Your task to perform on an android device: toggle priority inbox in the gmail app Image 0: 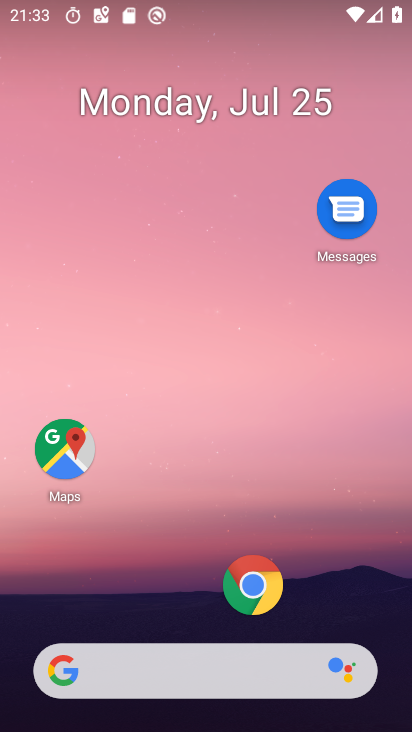
Step 0: press home button
Your task to perform on an android device: toggle priority inbox in the gmail app Image 1: 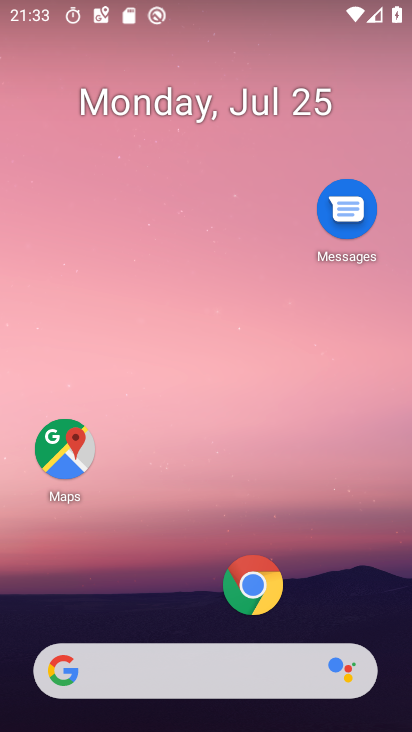
Step 1: drag from (229, 679) to (291, 132)
Your task to perform on an android device: toggle priority inbox in the gmail app Image 2: 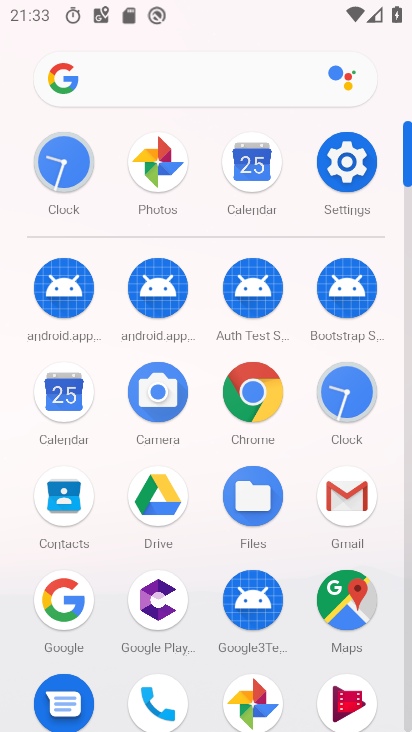
Step 2: click (341, 497)
Your task to perform on an android device: toggle priority inbox in the gmail app Image 3: 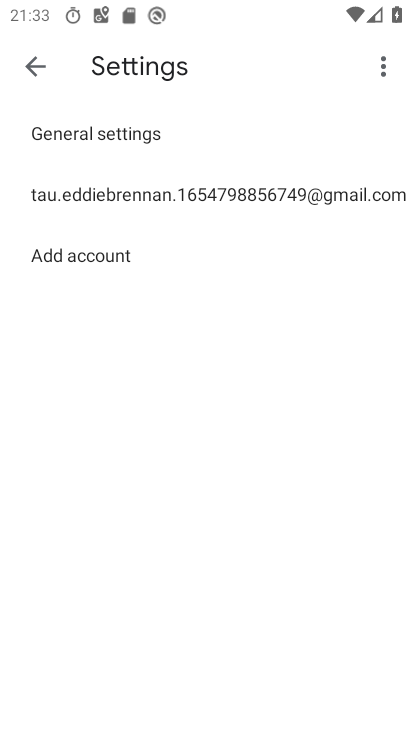
Step 3: click (148, 198)
Your task to perform on an android device: toggle priority inbox in the gmail app Image 4: 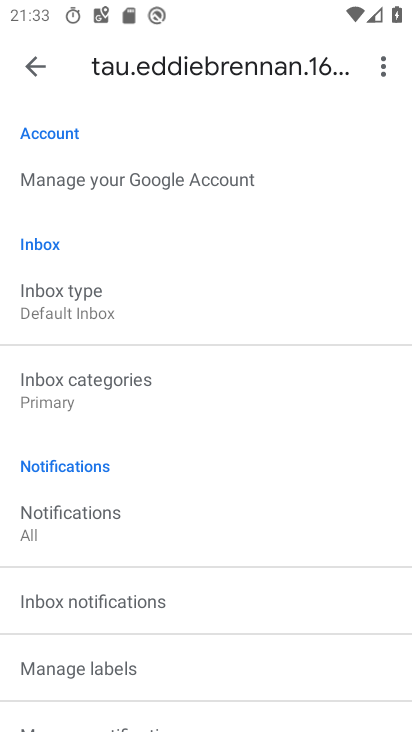
Step 4: click (96, 313)
Your task to perform on an android device: toggle priority inbox in the gmail app Image 5: 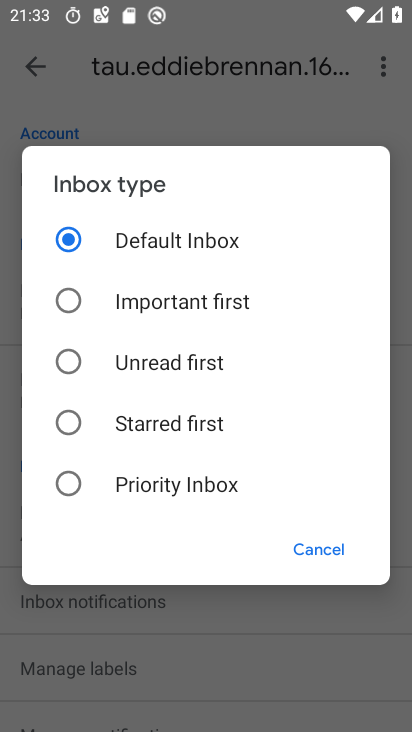
Step 5: click (72, 490)
Your task to perform on an android device: toggle priority inbox in the gmail app Image 6: 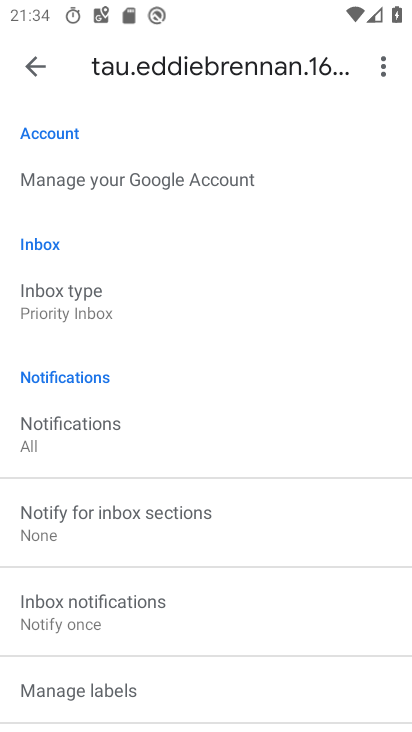
Step 6: task complete